Your task to perform on an android device: see sites visited before in the chrome app Image 0: 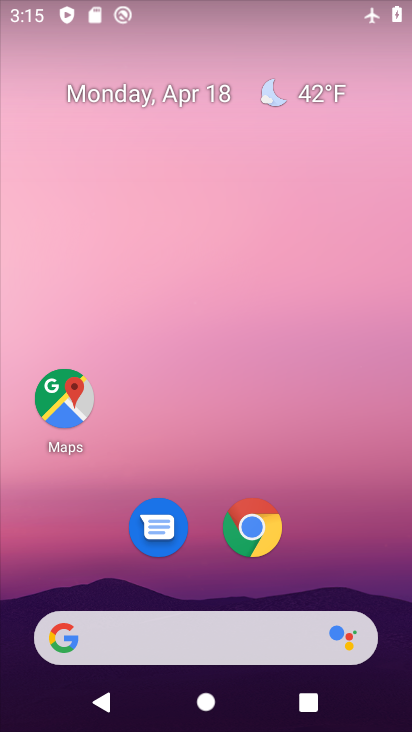
Step 0: click (253, 527)
Your task to perform on an android device: see sites visited before in the chrome app Image 1: 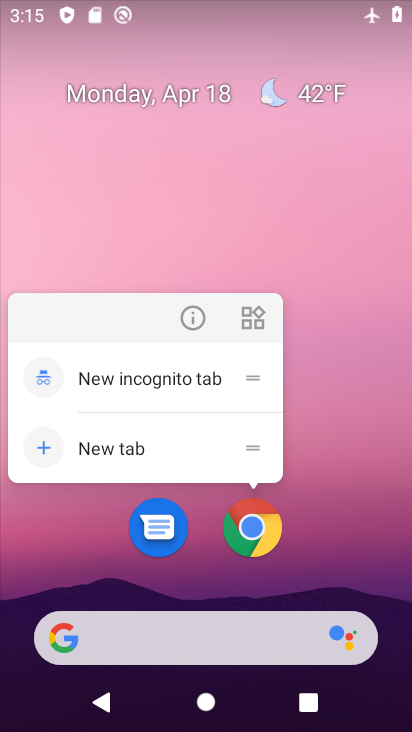
Step 1: click (268, 528)
Your task to perform on an android device: see sites visited before in the chrome app Image 2: 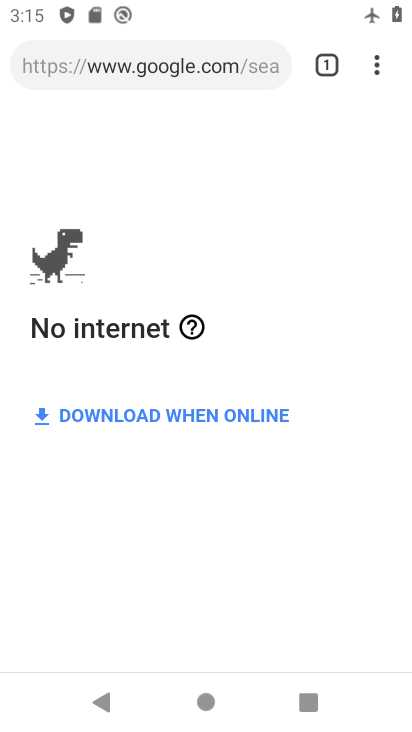
Step 2: click (373, 68)
Your task to perform on an android device: see sites visited before in the chrome app Image 3: 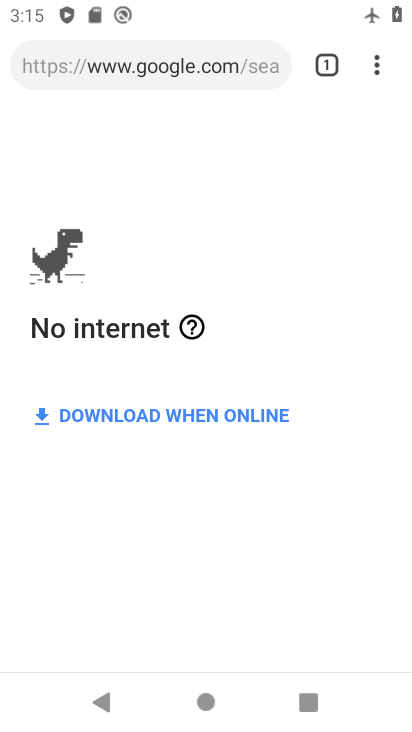
Step 3: click (377, 66)
Your task to perform on an android device: see sites visited before in the chrome app Image 4: 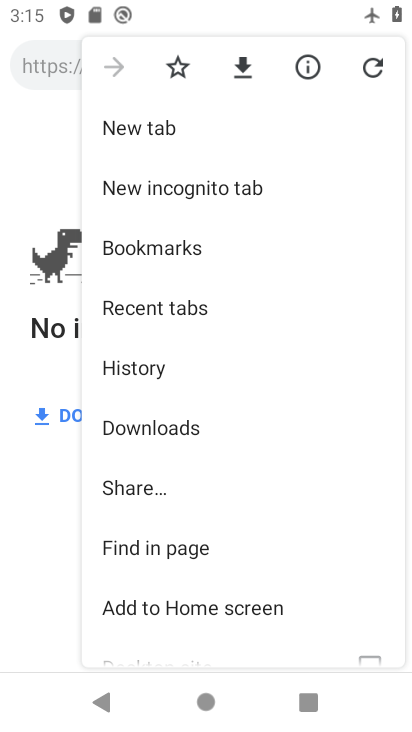
Step 4: click (125, 305)
Your task to perform on an android device: see sites visited before in the chrome app Image 5: 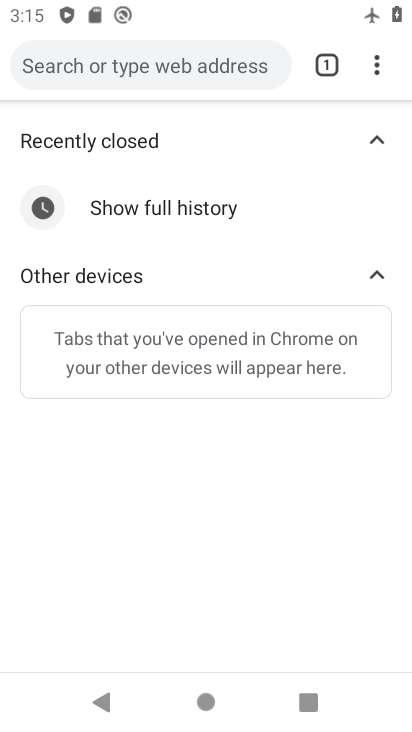
Step 5: click (165, 207)
Your task to perform on an android device: see sites visited before in the chrome app Image 6: 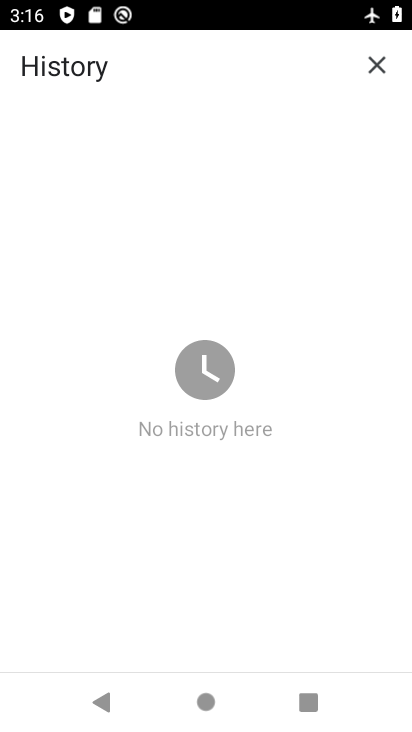
Step 6: task complete